Your task to perform on an android device: Show me popular games on the Play Store Image 0: 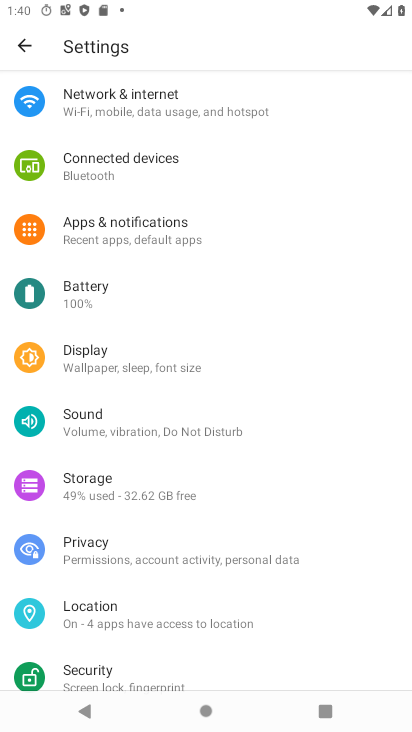
Step 0: press home button
Your task to perform on an android device: Show me popular games on the Play Store Image 1: 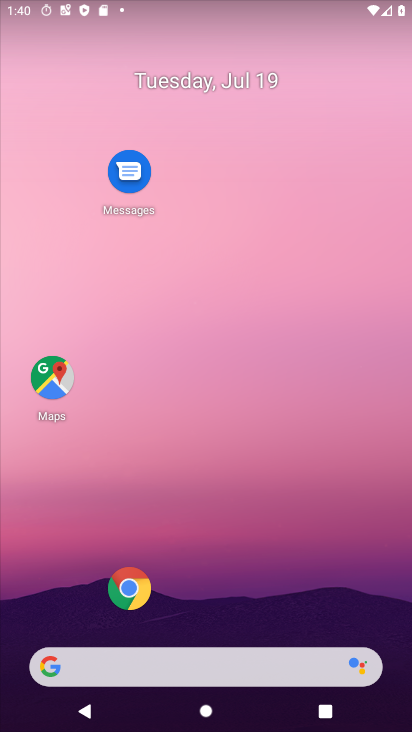
Step 1: drag from (92, 612) to (205, 28)
Your task to perform on an android device: Show me popular games on the Play Store Image 2: 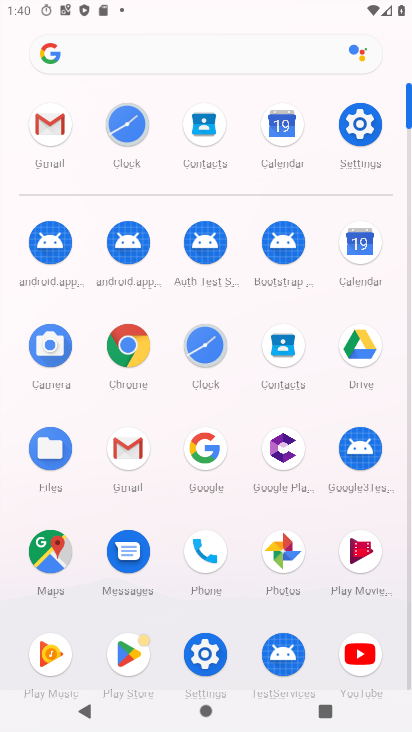
Step 2: click (131, 642)
Your task to perform on an android device: Show me popular games on the Play Store Image 3: 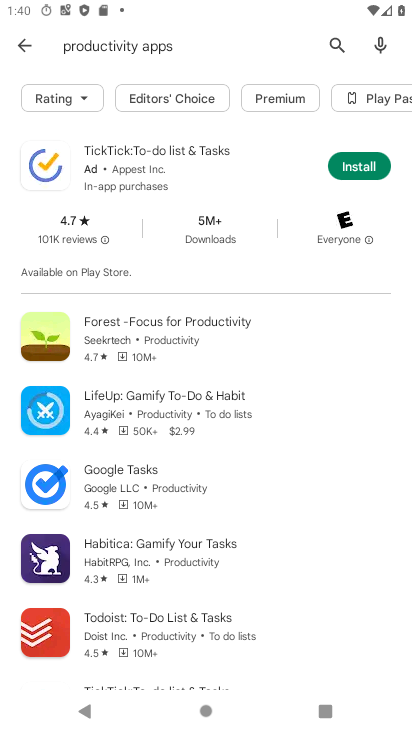
Step 3: click (22, 45)
Your task to perform on an android device: Show me popular games on the Play Store Image 4: 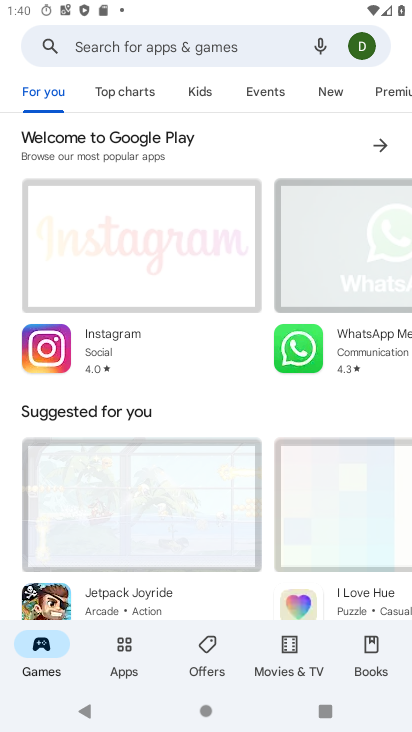
Step 4: click (118, 40)
Your task to perform on an android device: Show me popular games on the Play Store Image 5: 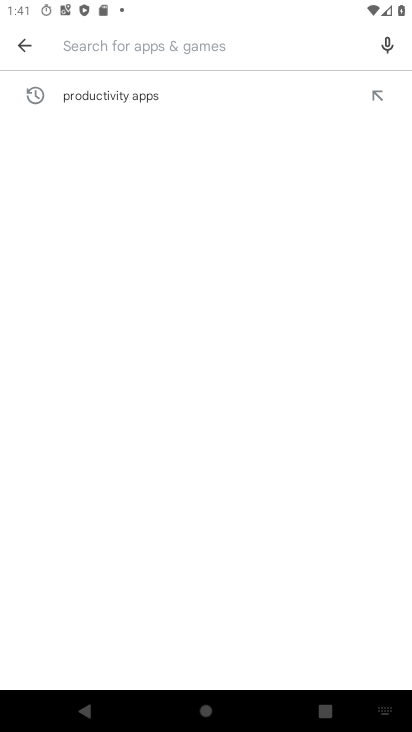
Step 5: type "popular games"
Your task to perform on an android device: Show me popular games on the Play Store Image 6: 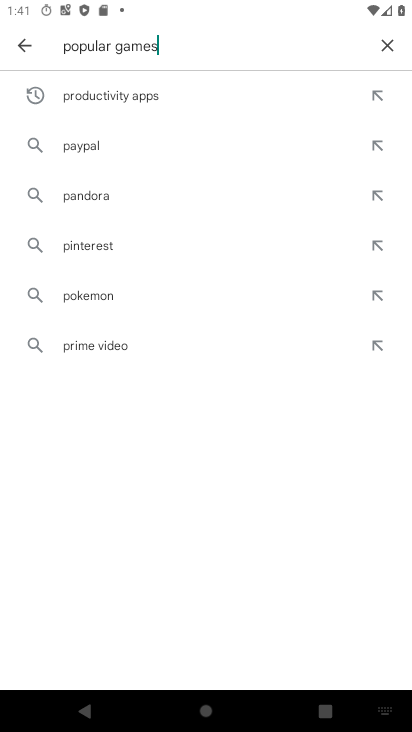
Step 6: type ""
Your task to perform on an android device: Show me popular games on the Play Store Image 7: 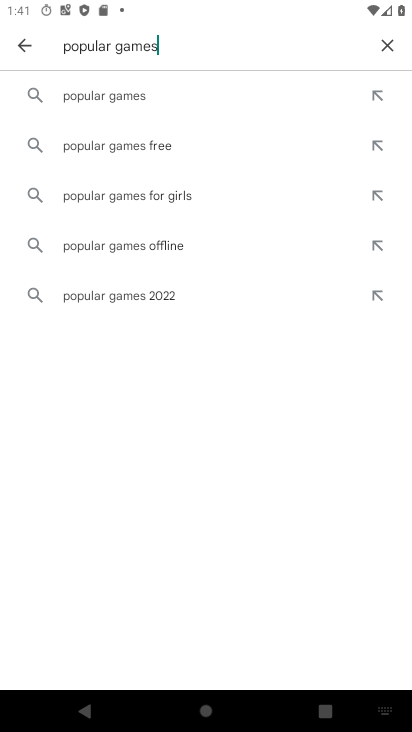
Step 7: click (136, 101)
Your task to perform on an android device: Show me popular games on the Play Store Image 8: 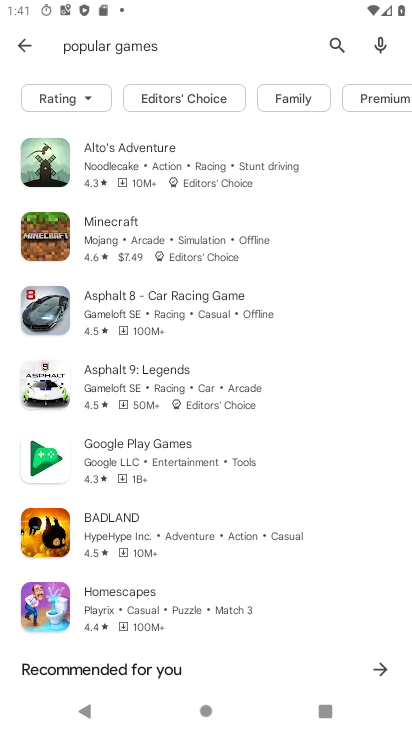
Step 8: task complete